Your task to perform on an android device: When is my next appointment? Image 0: 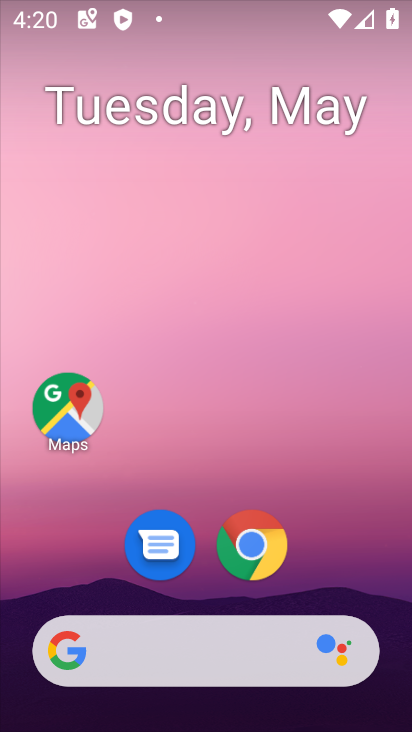
Step 0: drag from (338, 576) to (287, 175)
Your task to perform on an android device: When is my next appointment? Image 1: 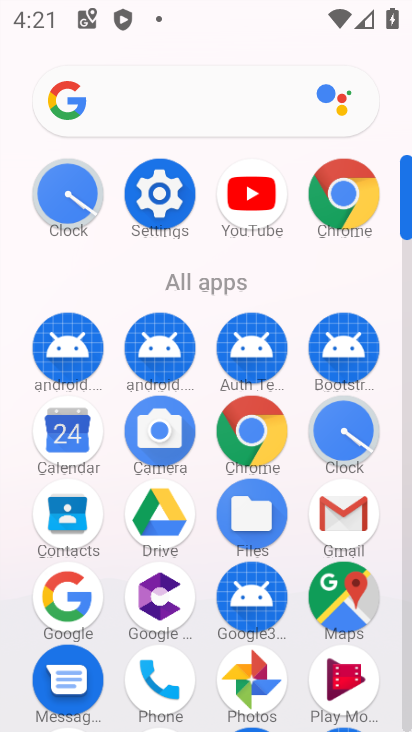
Step 1: click (69, 435)
Your task to perform on an android device: When is my next appointment? Image 2: 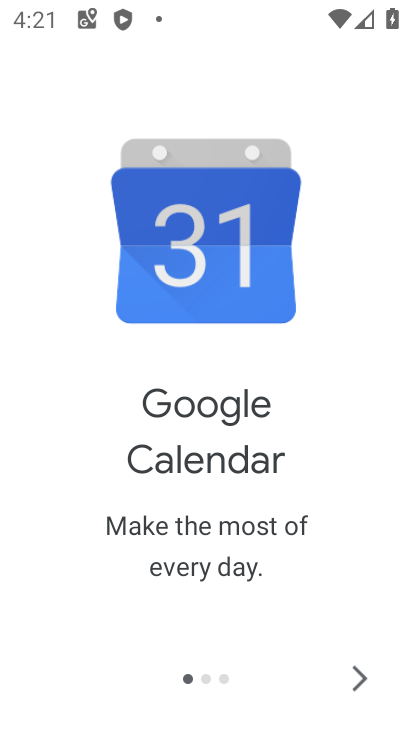
Step 2: click (360, 673)
Your task to perform on an android device: When is my next appointment? Image 3: 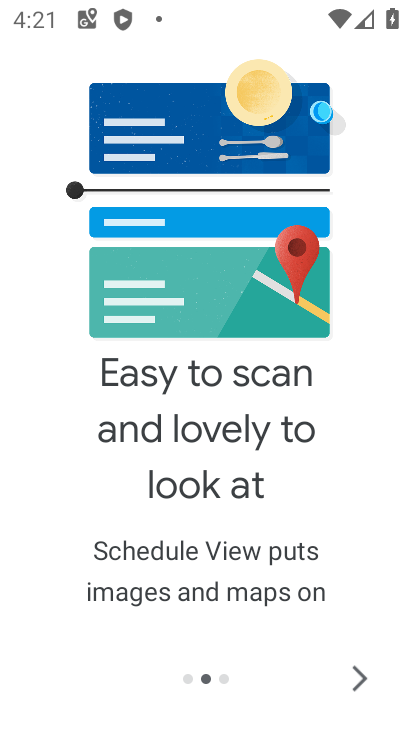
Step 3: click (360, 673)
Your task to perform on an android device: When is my next appointment? Image 4: 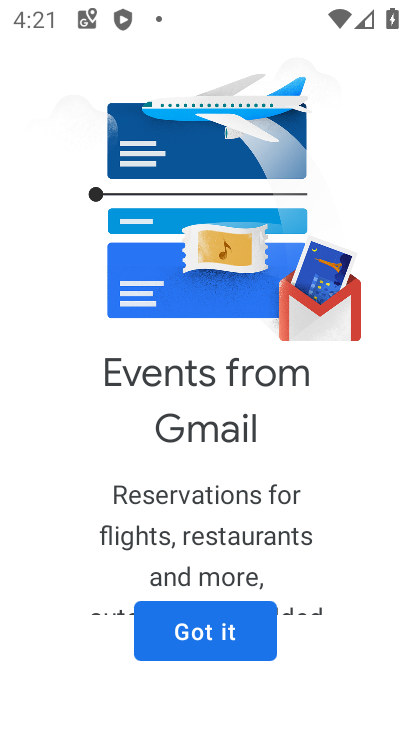
Step 4: click (225, 613)
Your task to perform on an android device: When is my next appointment? Image 5: 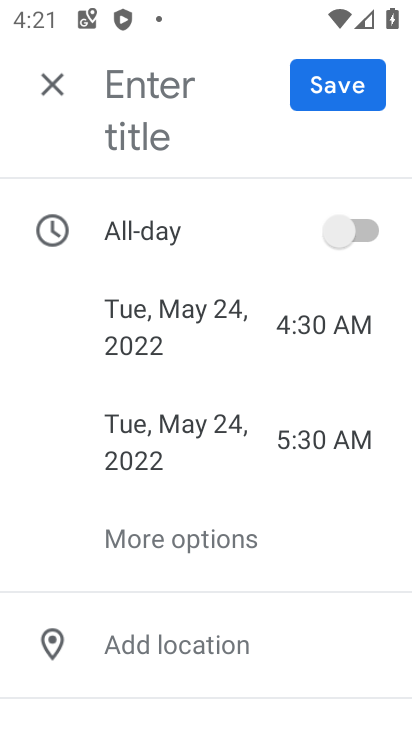
Step 5: click (53, 80)
Your task to perform on an android device: When is my next appointment? Image 6: 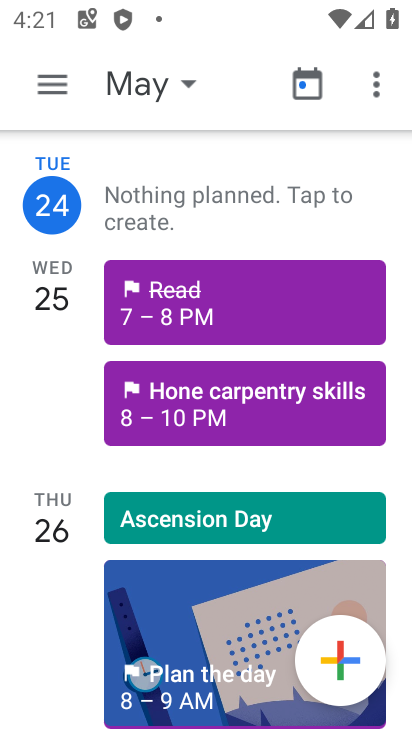
Step 6: click (310, 89)
Your task to perform on an android device: When is my next appointment? Image 7: 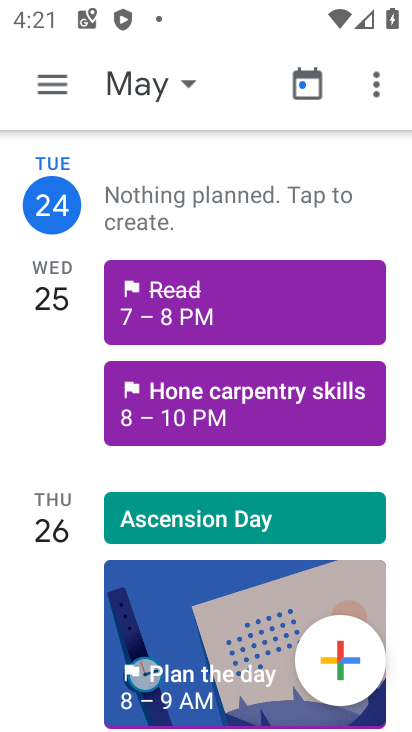
Step 7: click (174, 305)
Your task to perform on an android device: When is my next appointment? Image 8: 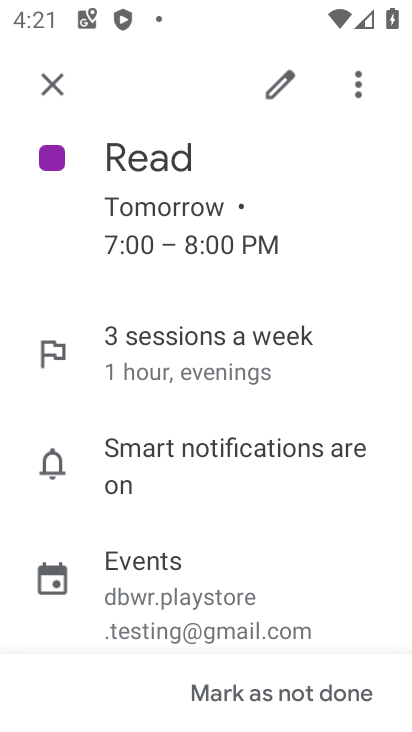
Step 8: task complete